Your task to perform on an android device: check android version Image 0: 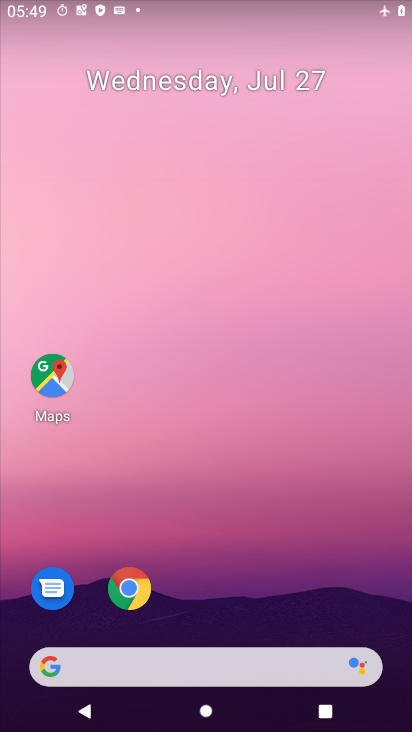
Step 0: drag from (179, 648) to (221, 219)
Your task to perform on an android device: check android version Image 1: 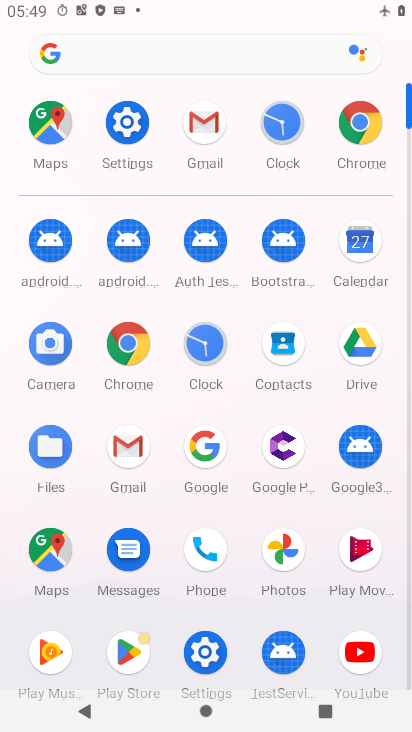
Step 1: click (123, 120)
Your task to perform on an android device: check android version Image 2: 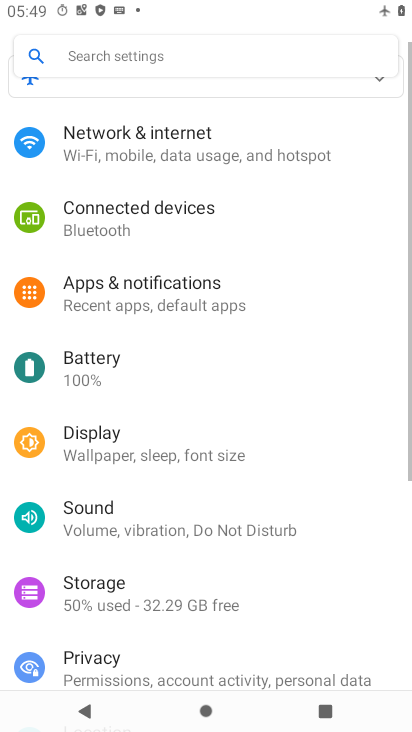
Step 2: drag from (206, 669) to (213, 187)
Your task to perform on an android device: check android version Image 3: 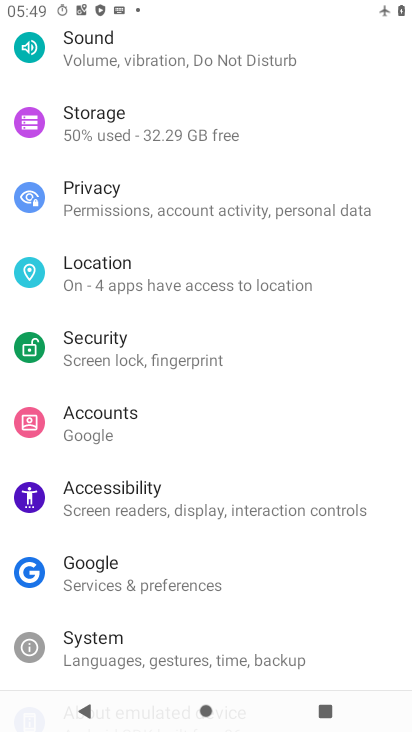
Step 3: drag from (170, 620) to (237, 212)
Your task to perform on an android device: check android version Image 4: 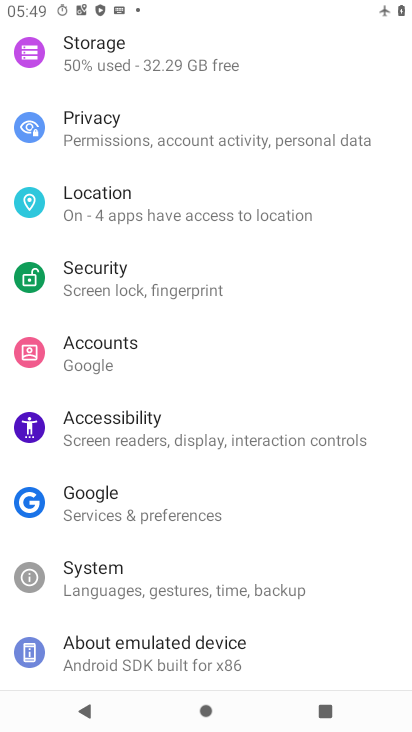
Step 4: click (173, 642)
Your task to perform on an android device: check android version Image 5: 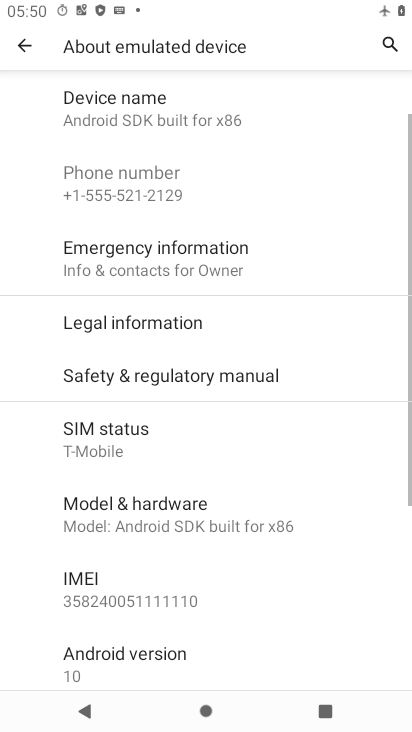
Step 5: click (152, 656)
Your task to perform on an android device: check android version Image 6: 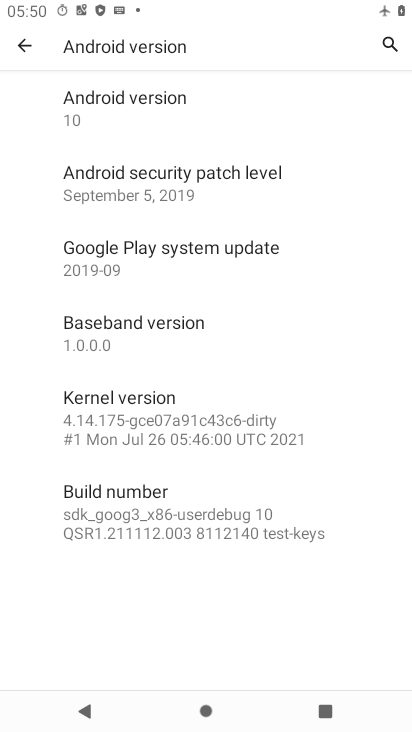
Step 6: task complete